Your task to perform on an android device: set default search engine in the chrome app Image 0: 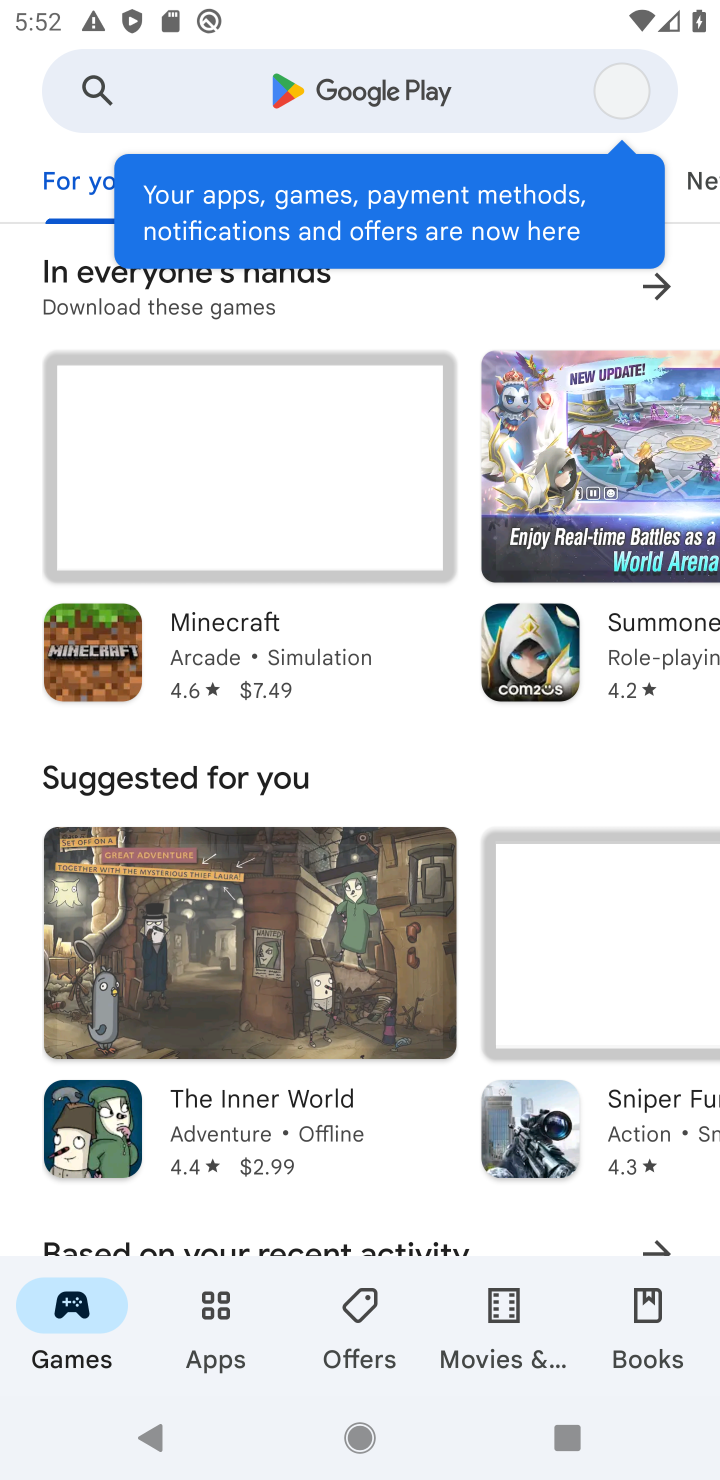
Step 0: press home button
Your task to perform on an android device: set default search engine in the chrome app Image 1: 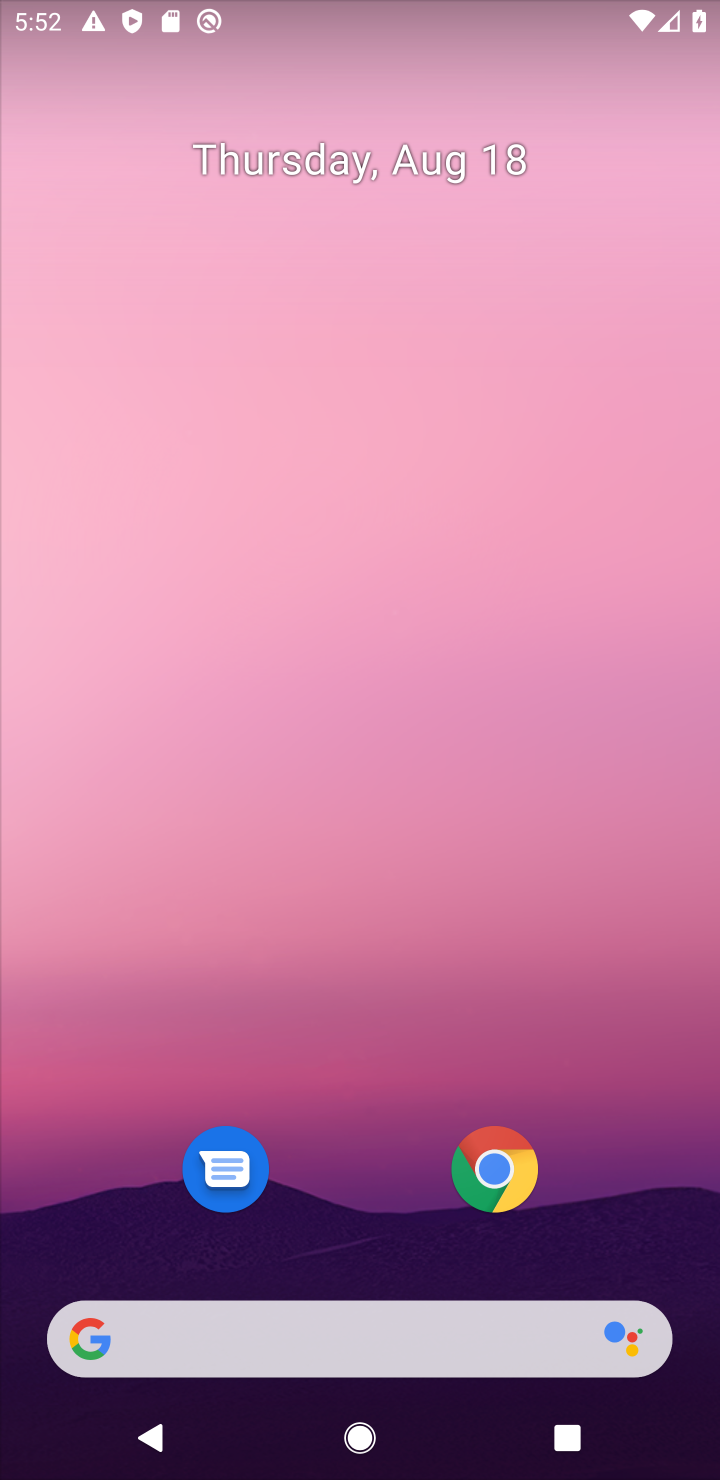
Step 1: click (519, 1185)
Your task to perform on an android device: set default search engine in the chrome app Image 2: 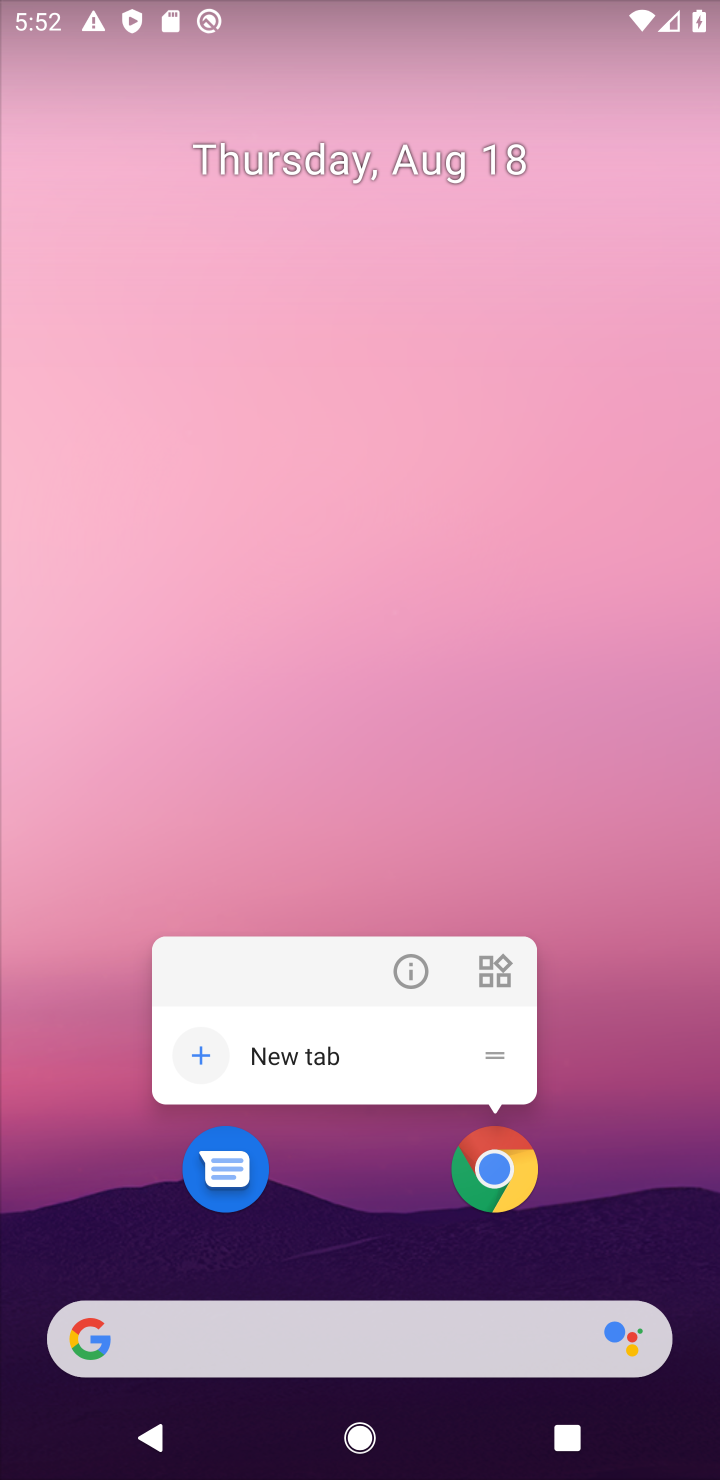
Step 2: click (509, 1170)
Your task to perform on an android device: set default search engine in the chrome app Image 3: 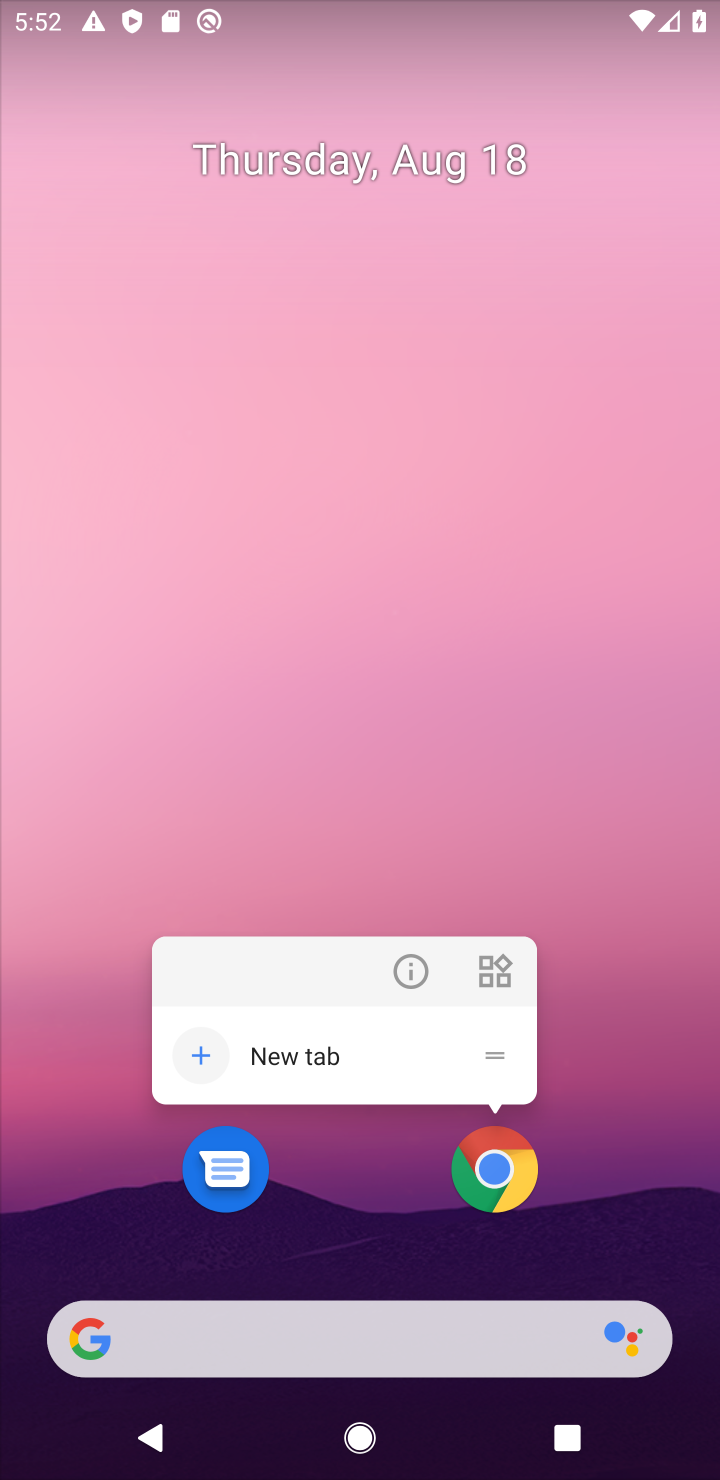
Step 3: click (486, 1172)
Your task to perform on an android device: set default search engine in the chrome app Image 4: 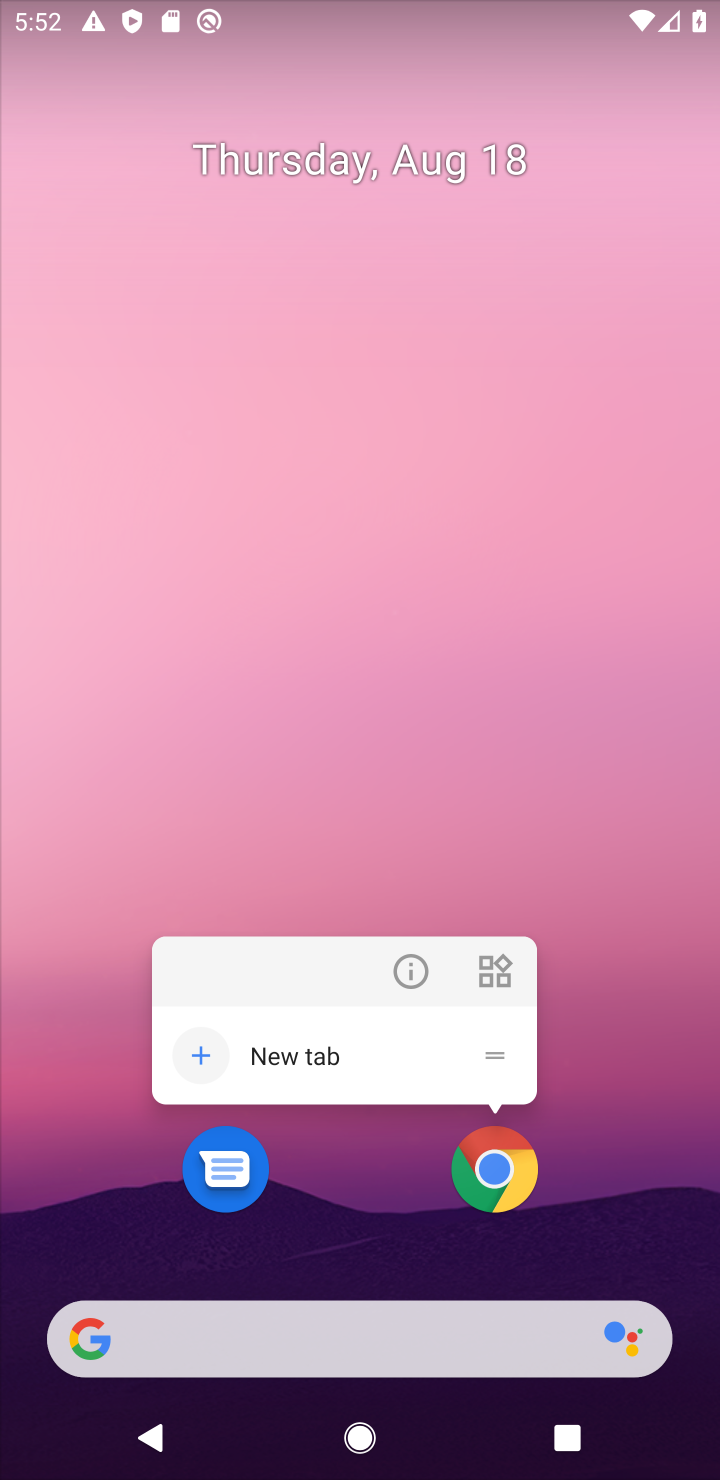
Step 4: click (505, 1167)
Your task to perform on an android device: set default search engine in the chrome app Image 5: 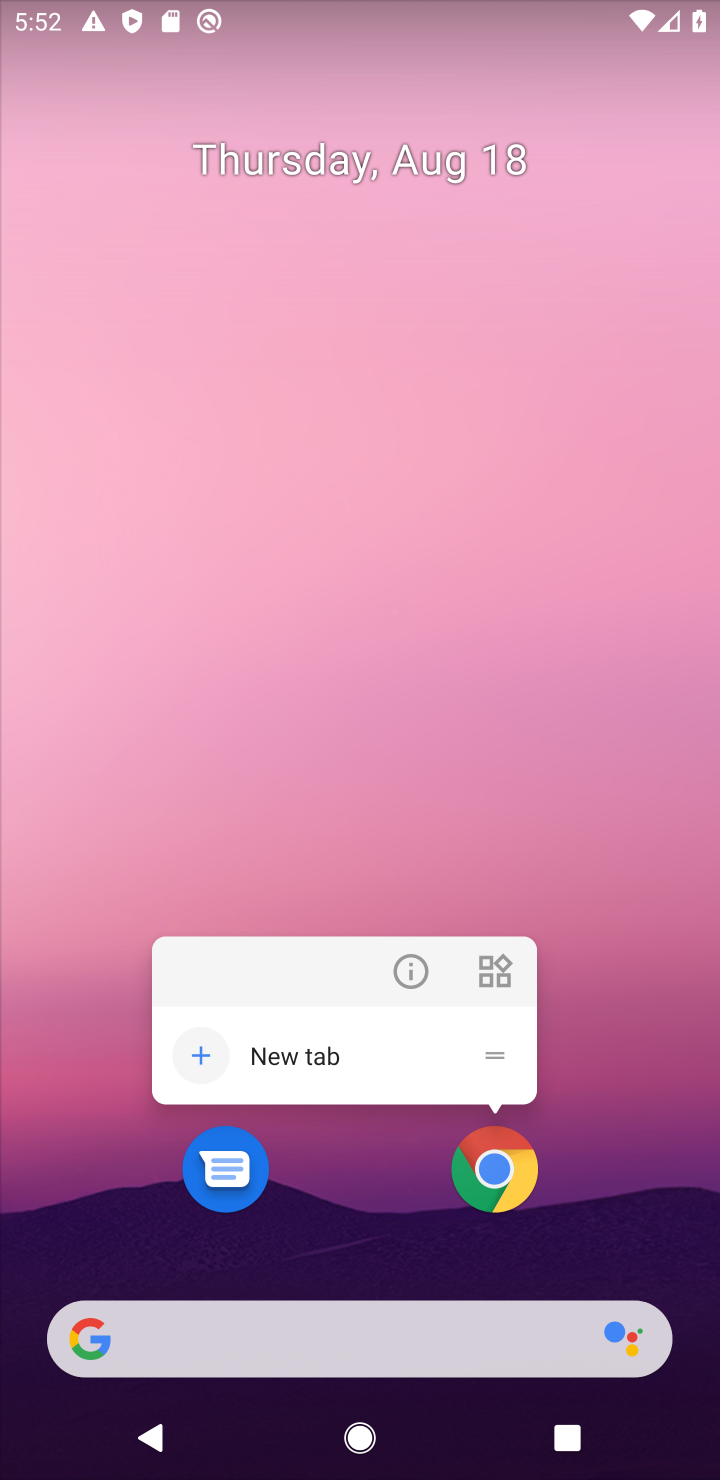
Step 5: click (505, 1167)
Your task to perform on an android device: set default search engine in the chrome app Image 6: 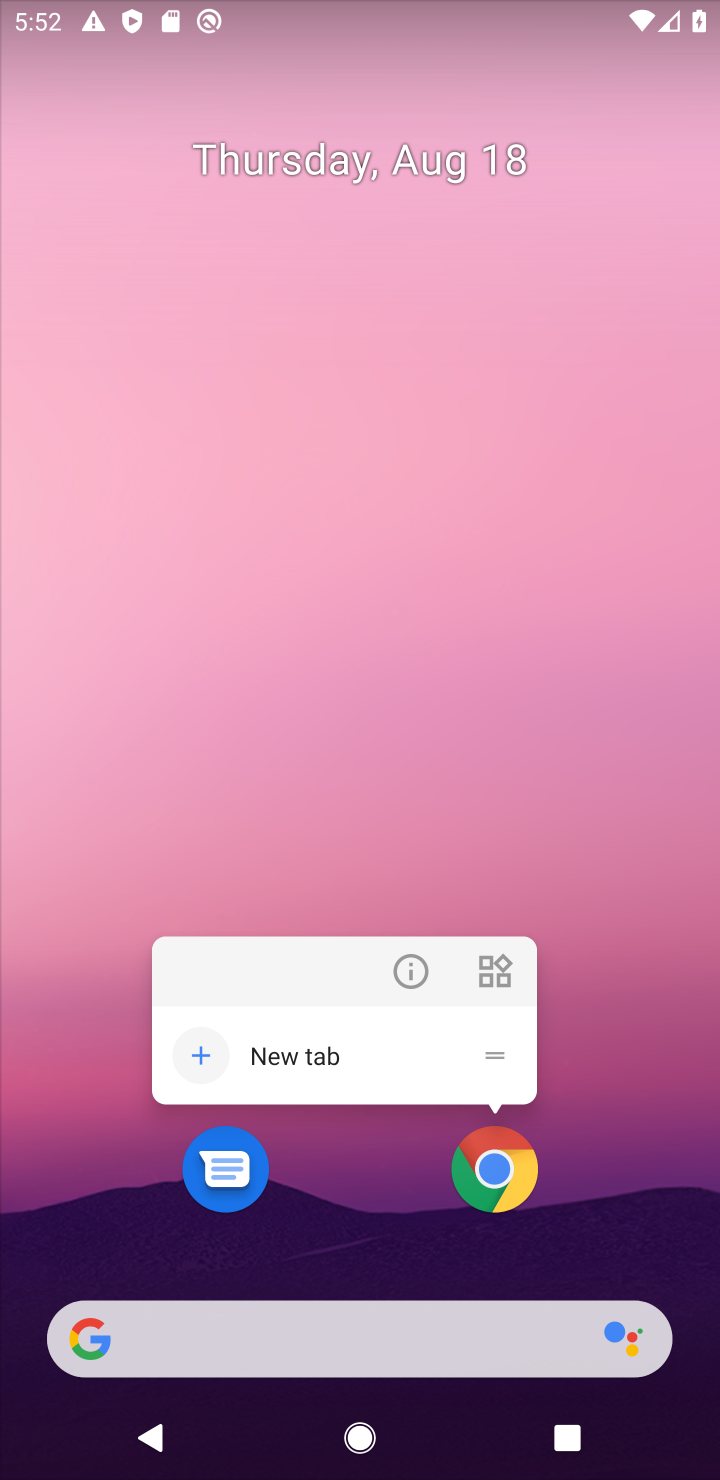
Step 6: click (501, 1184)
Your task to perform on an android device: set default search engine in the chrome app Image 7: 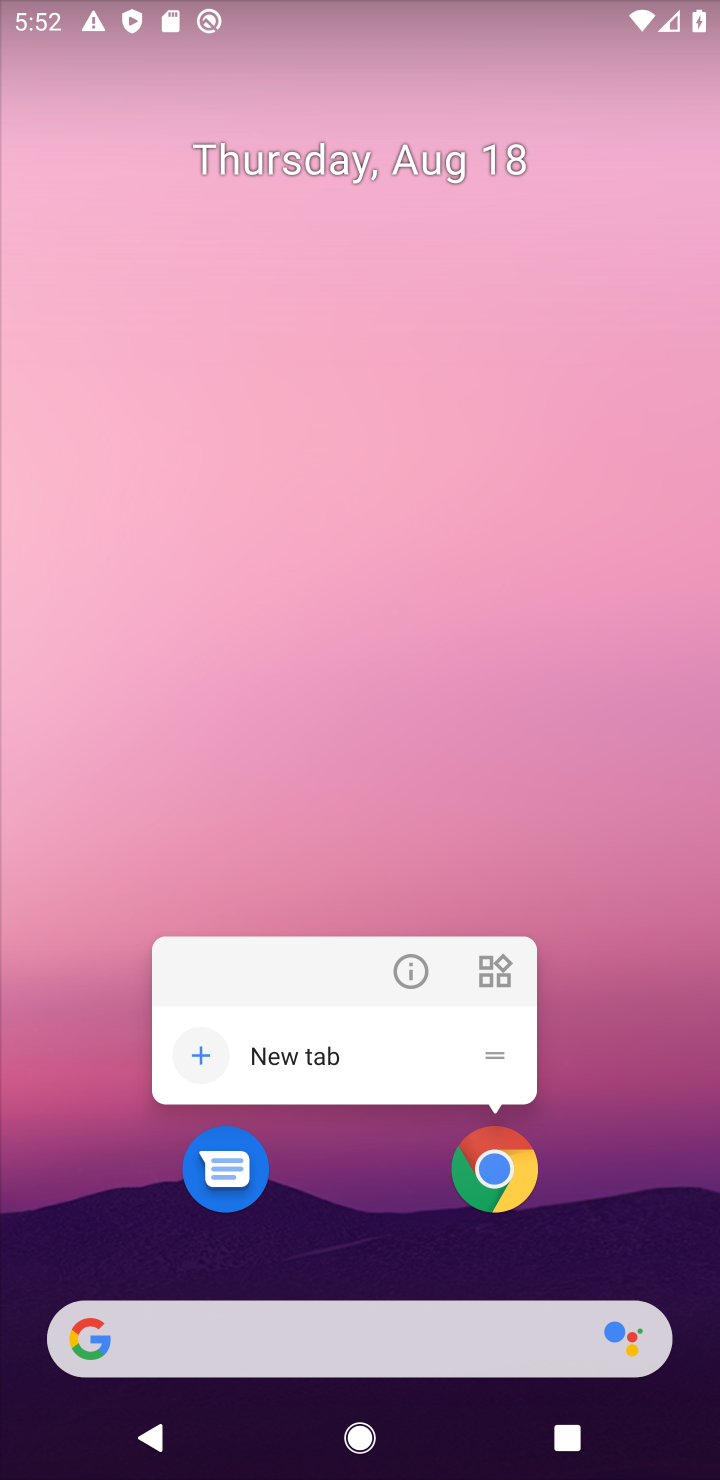
Step 7: click (501, 1184)
Your task to perform on an android device: set default search engine in the chrome app Image 8: 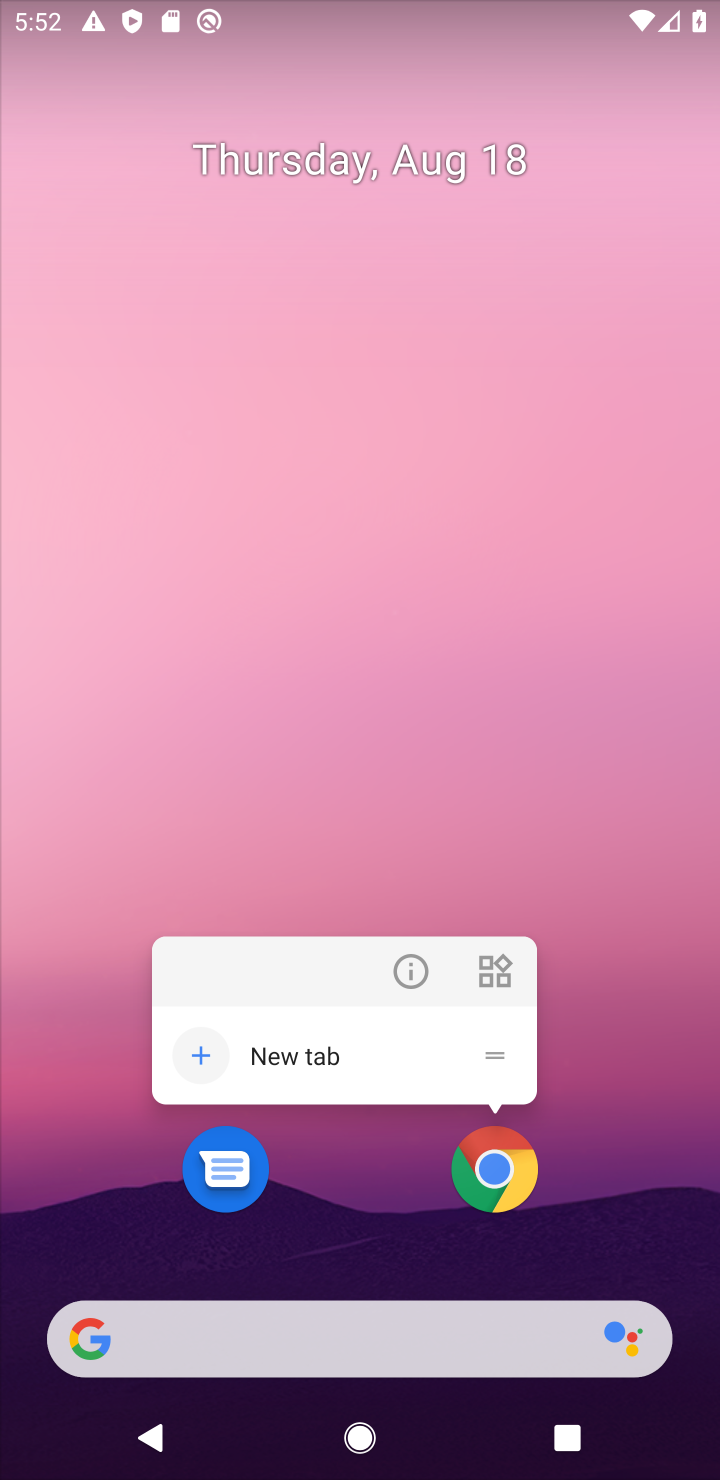
Step 8: click (501, 1184)
Your task to perform on an android device: set default search engine in the chrome app Image 9: 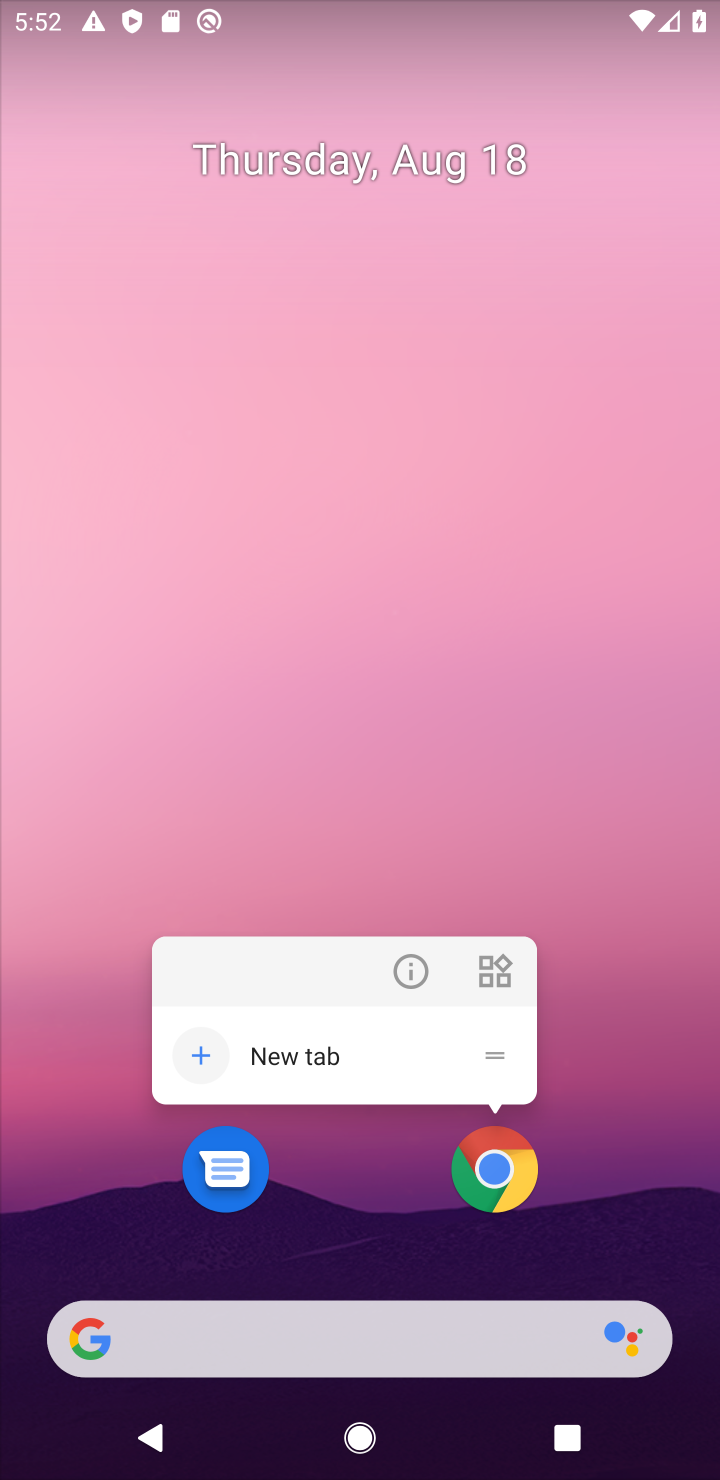
Step 9: click (501, 1184)
Your task to perform on an android device: set default search engine in the chrome app Image 10: 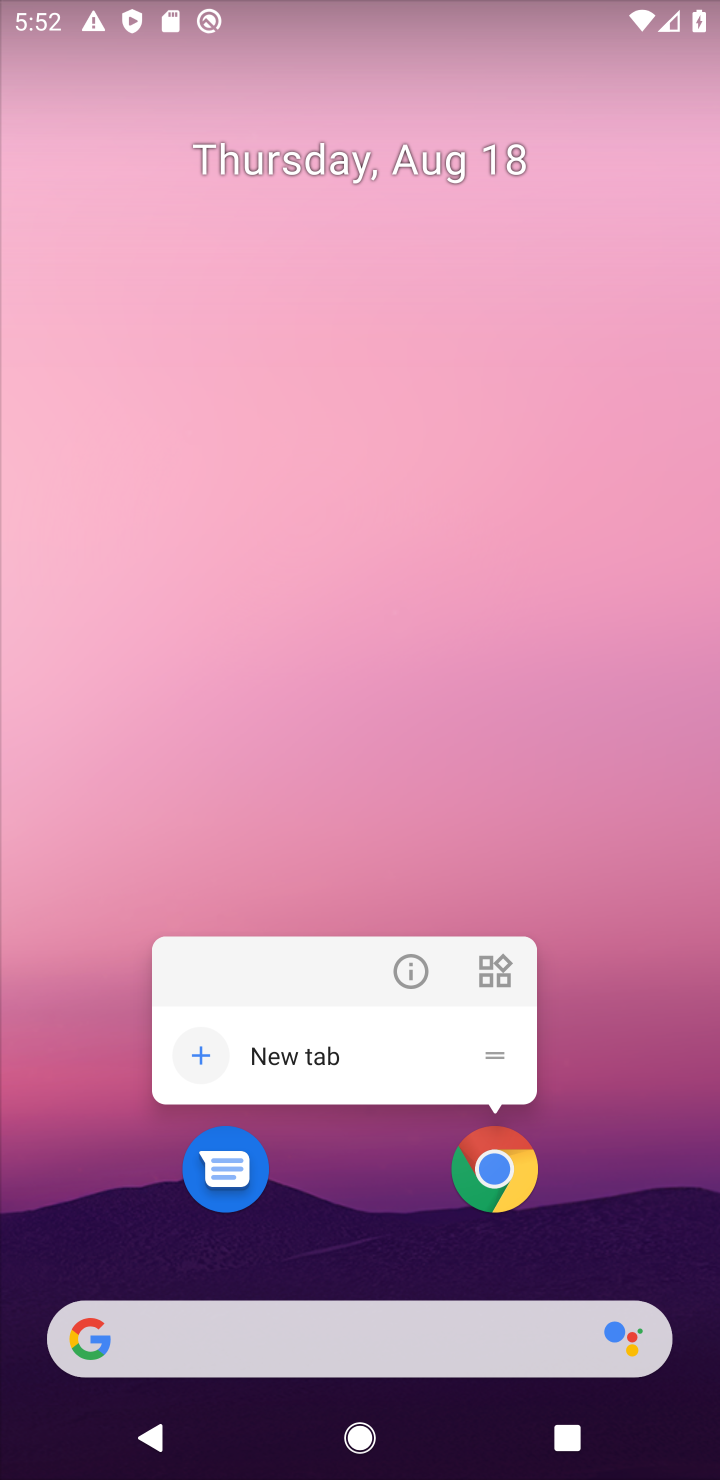
Step 10: click (484, 1180)
Your task to perform on an android device: set default search engine in the chrome app Image 11: 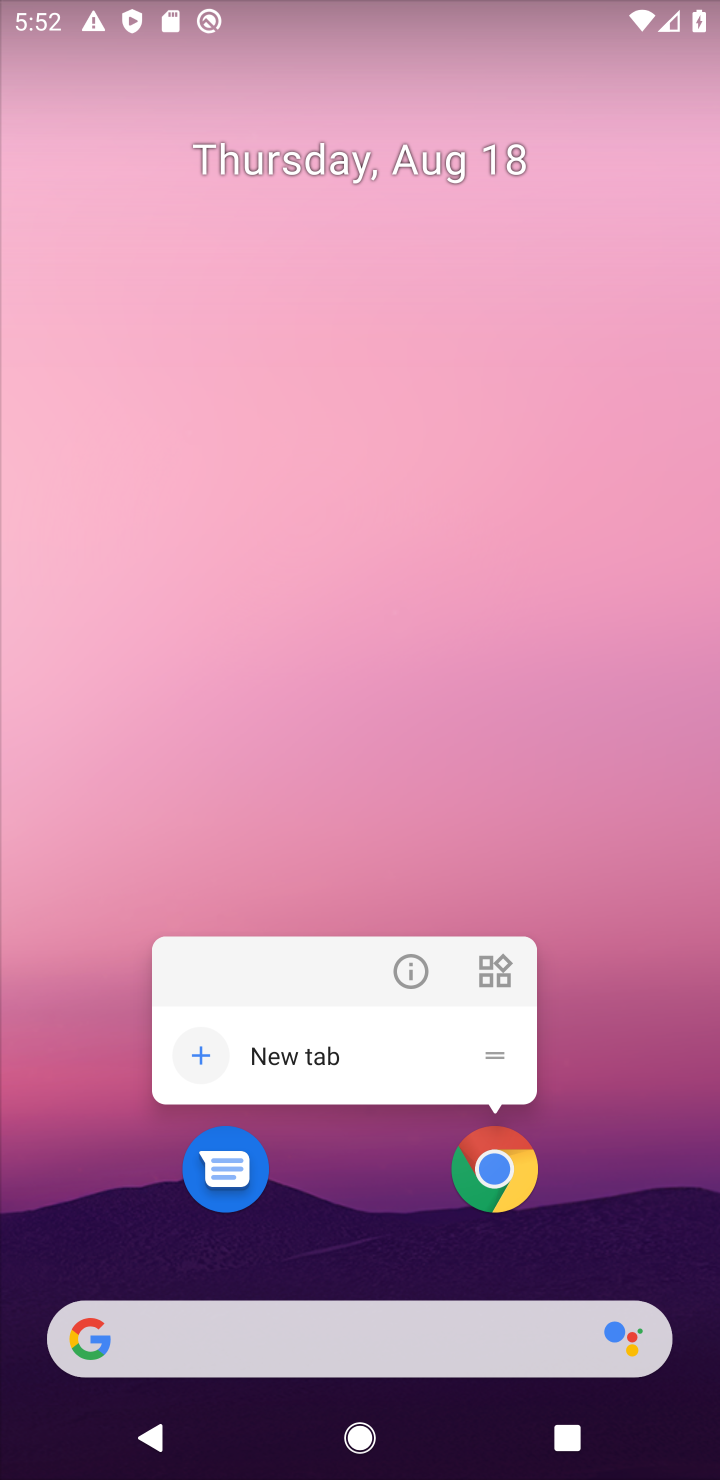
Step 11: click (484, 1178)
Your task to perform on an android device: set default search engine in the chrome app Image 12: 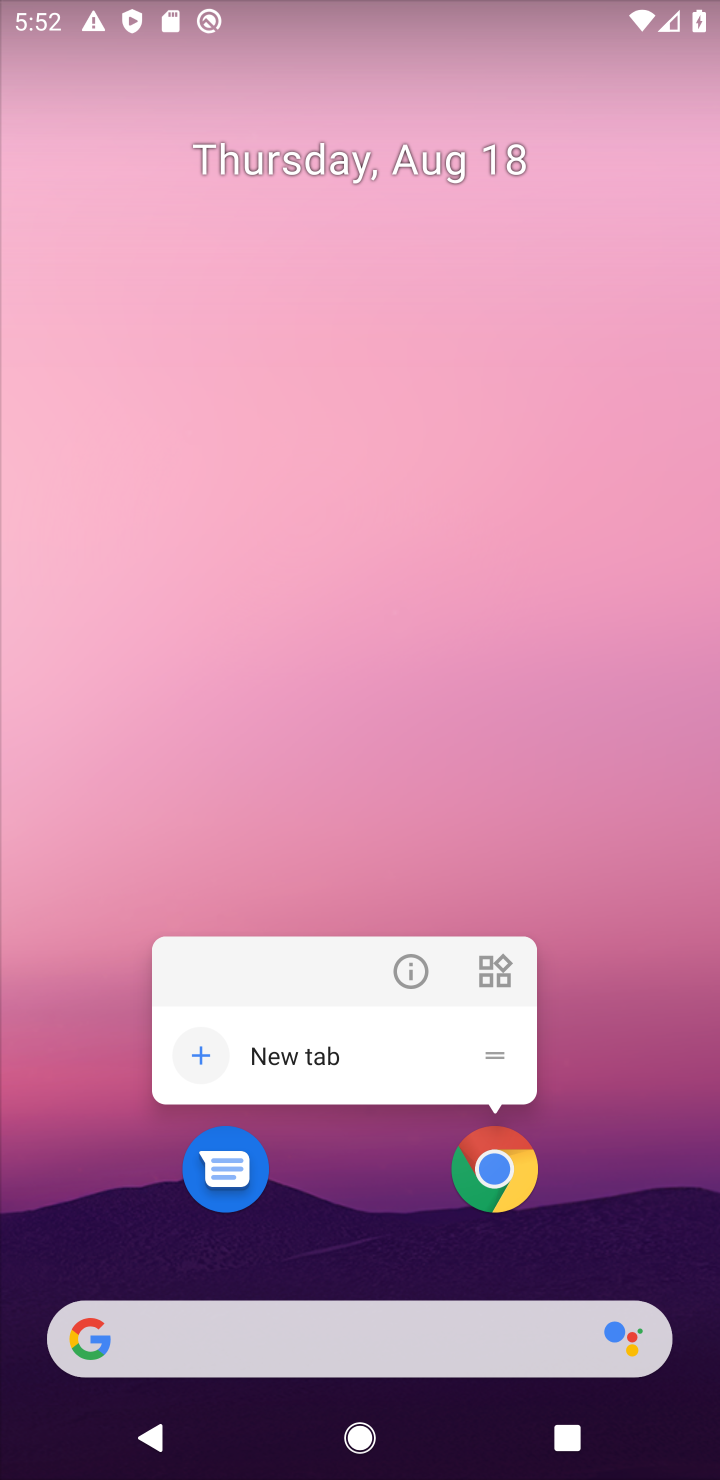
Step 12: click (505, 1152)
Your task to perform on an android device: set default search engine in the chrome app Image 13: 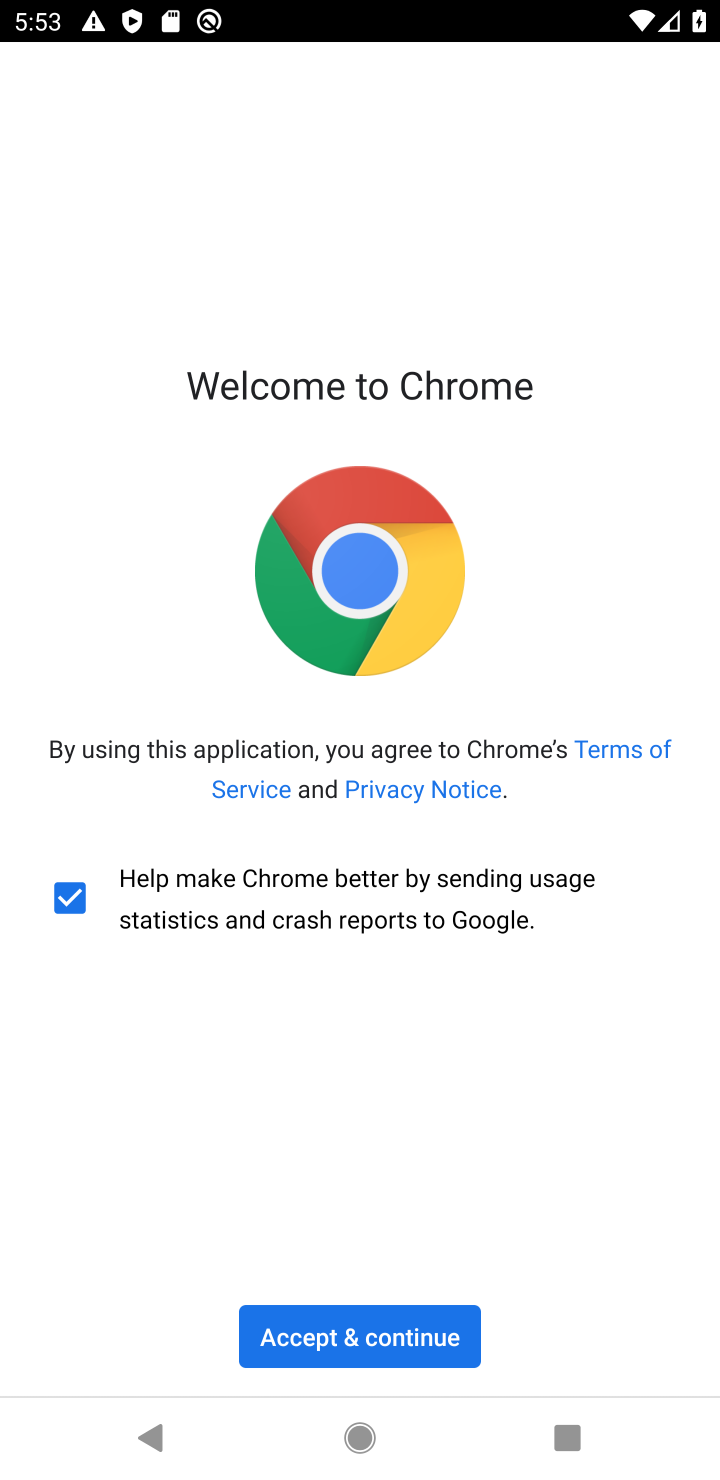
Step 13: click (345, 1335)
Your task to perform on an android device: set default search engine in the chrome app Image 14: 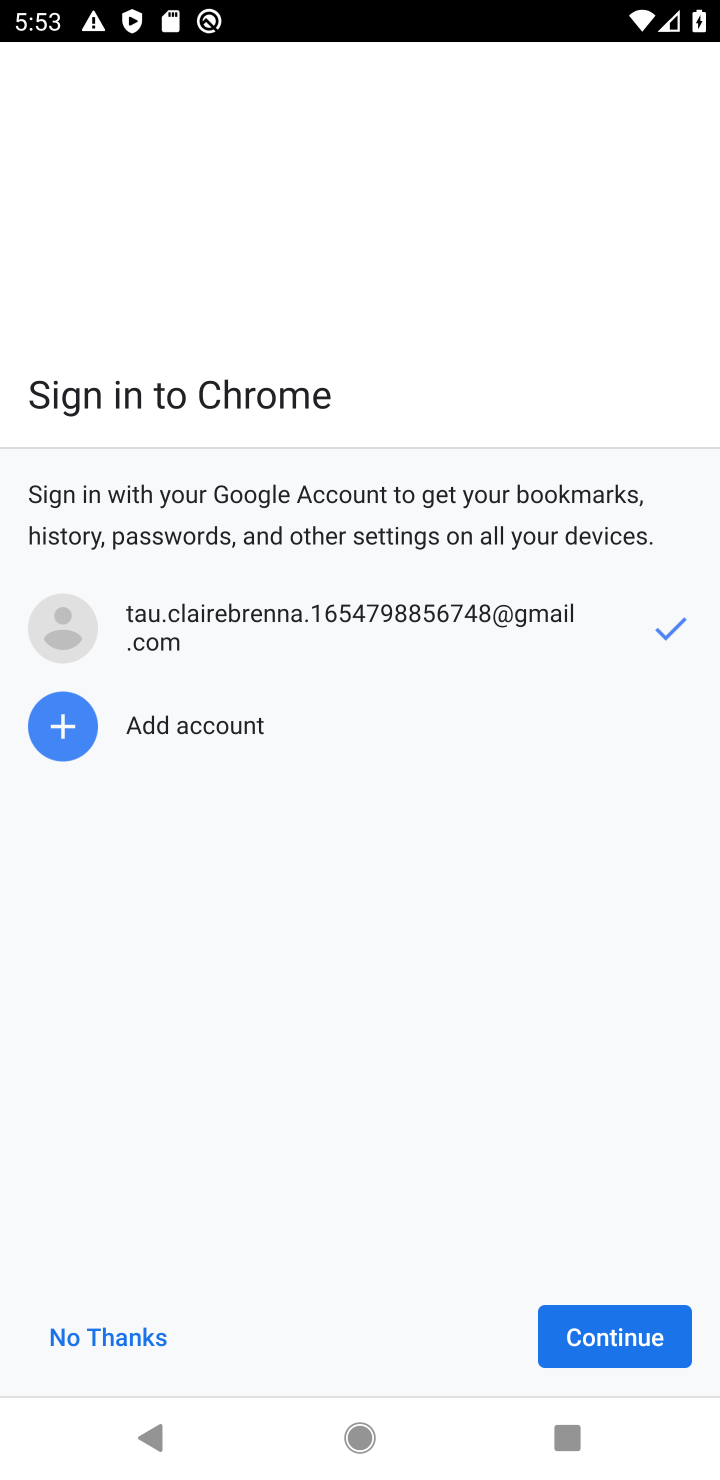
Step 14: click (581, 1338)
Your task to perform on an android device: set default search engine in the chrome app Image 15: 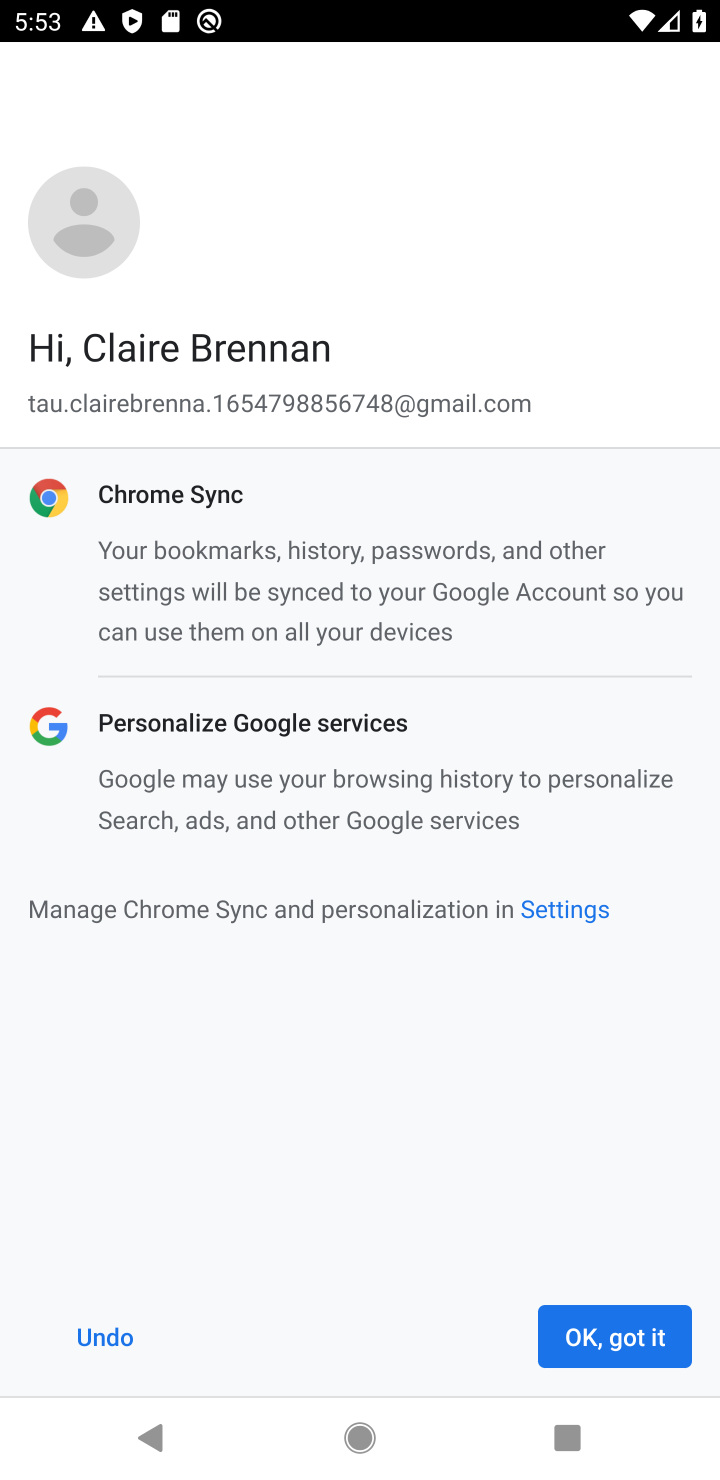
Step 15: click (581, 1338)
Your task to perform on an android device: set default search engine in the chrome app Image 16: 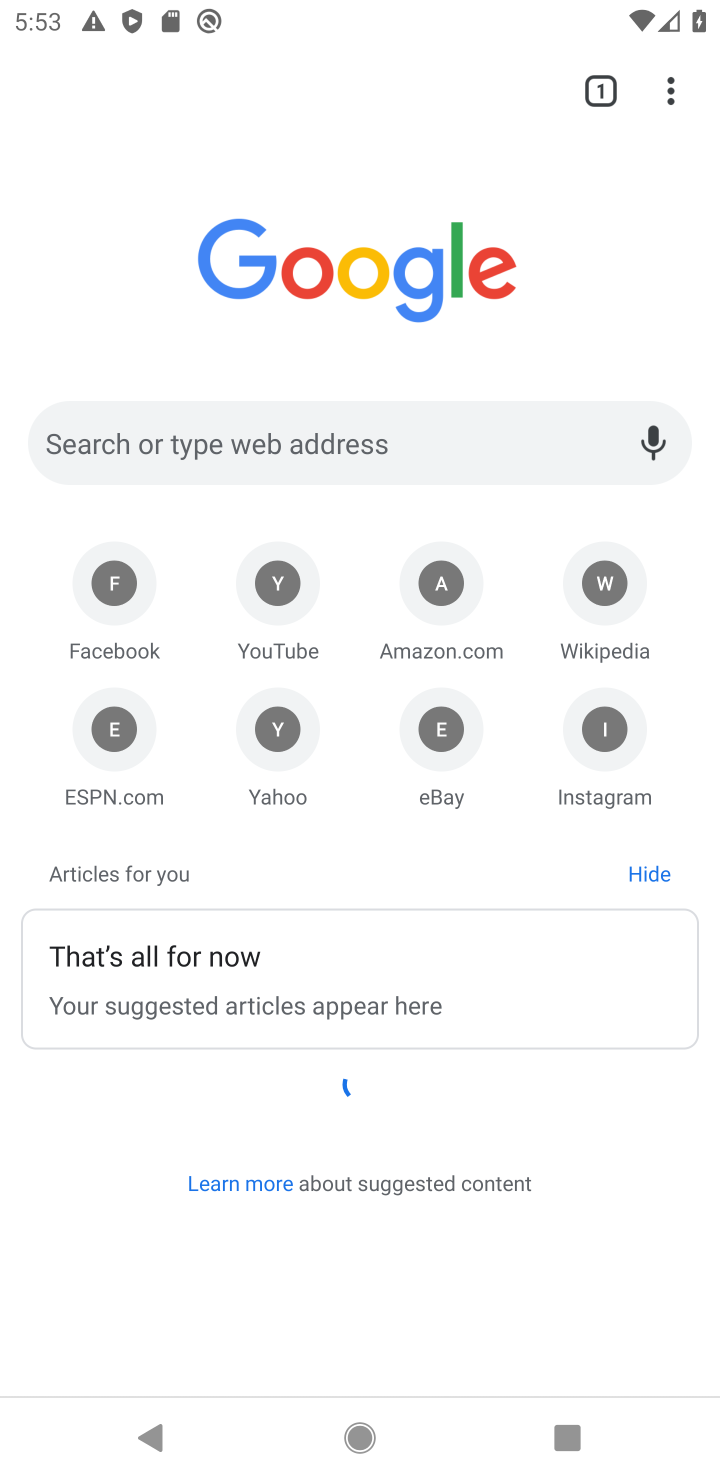
Step 16: drag from (680, 90) to (331, 752)
Your task to perform on an android device: set default search engine in the chrome app Image 17: 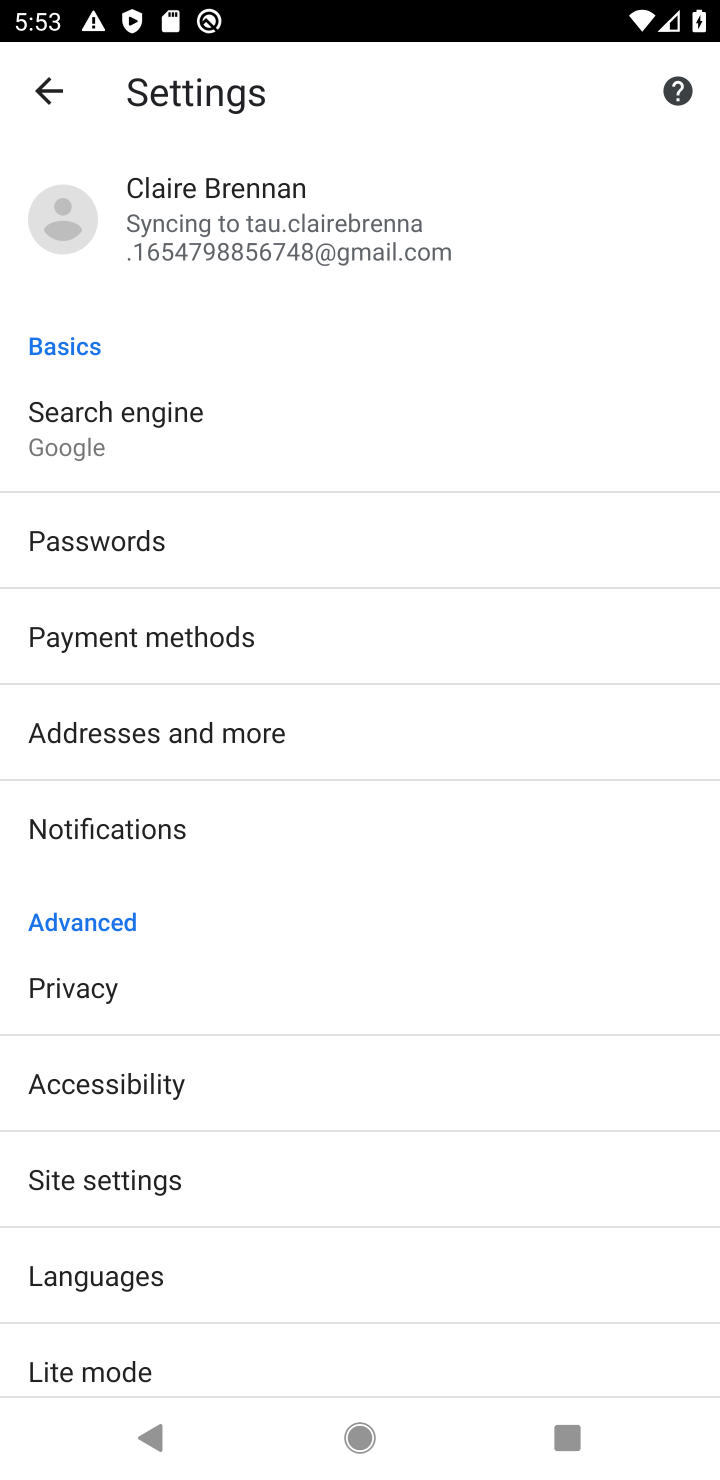
Step 17: click (110, 435)
Your task to perform on an android device: set default search engine in the chrome app Image 18: 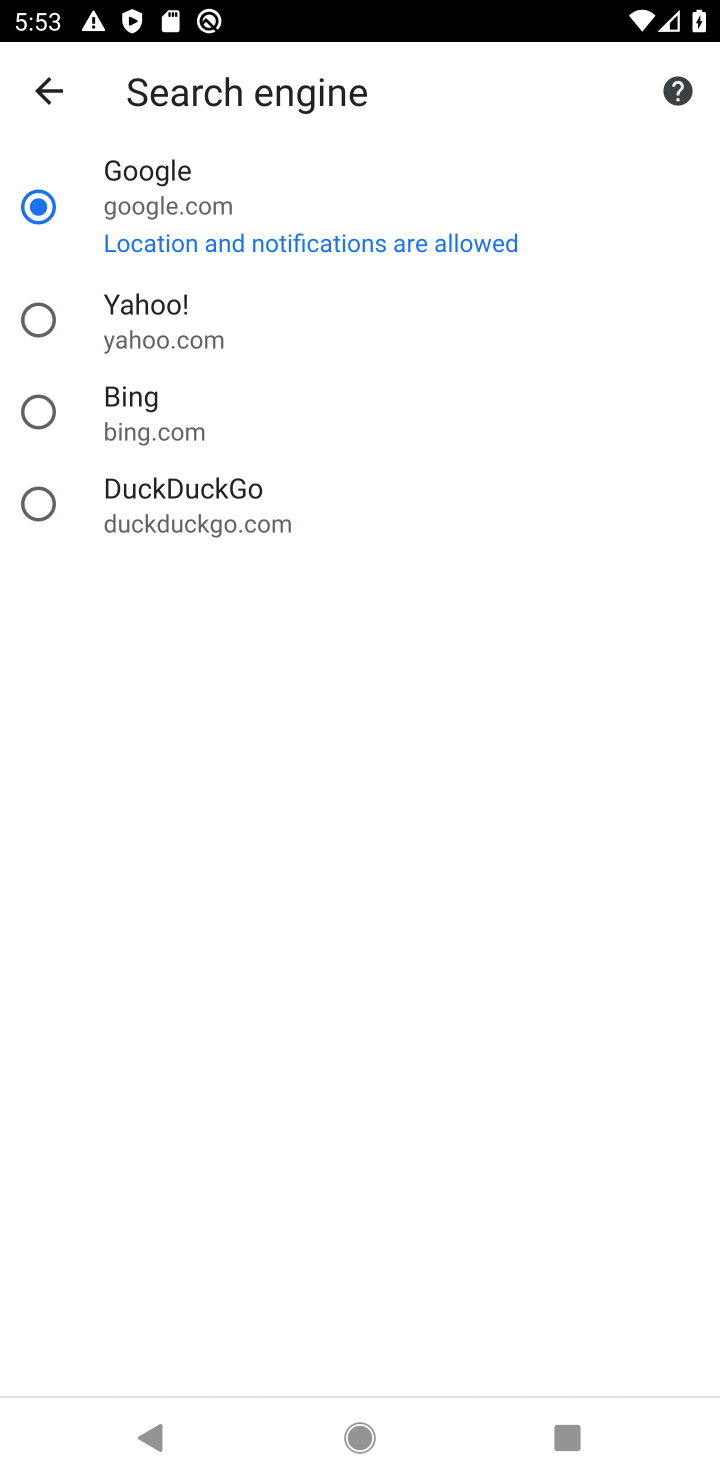
Step 18: click (44, 412)
Your task to perform on an android device: set default search engine in the chrome app Image 19: 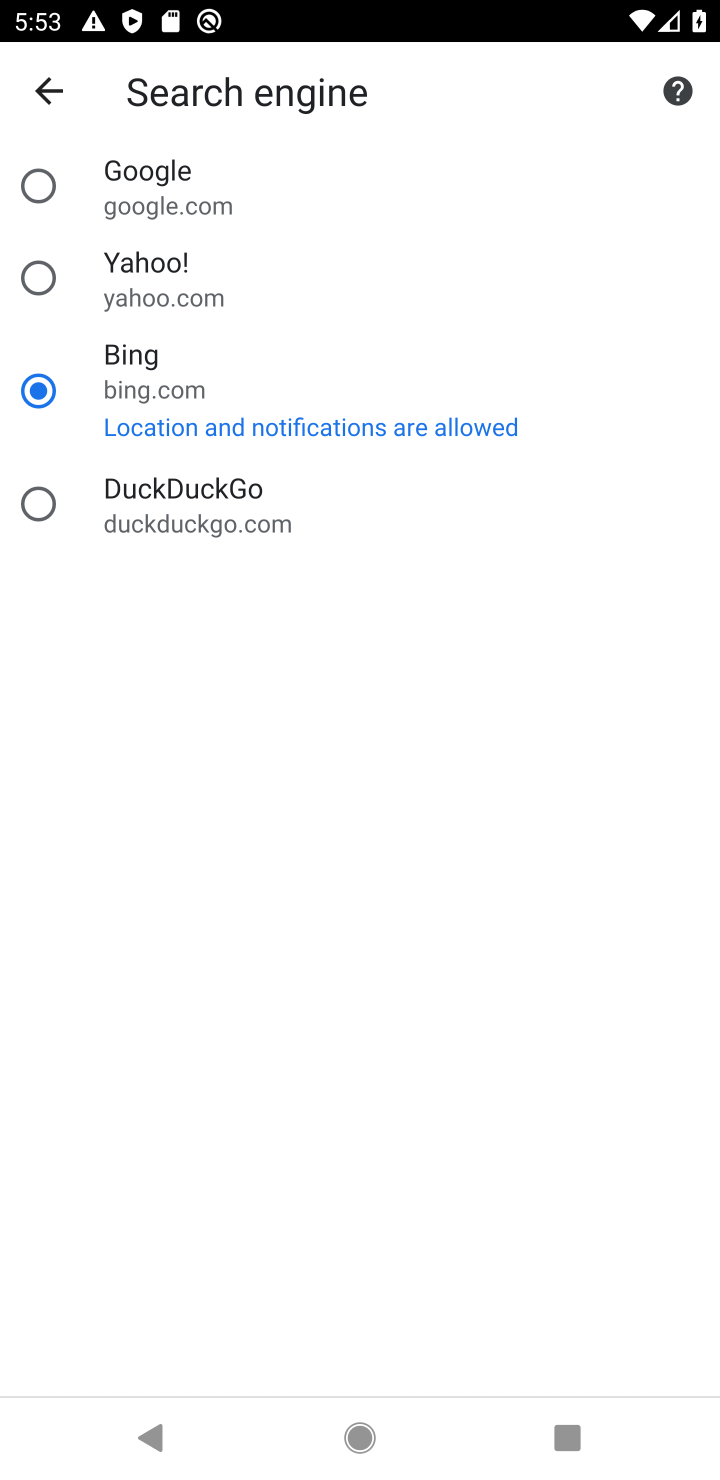
Step 19: task complete